Your task to perform on an android device: turn off wifi Image 0: 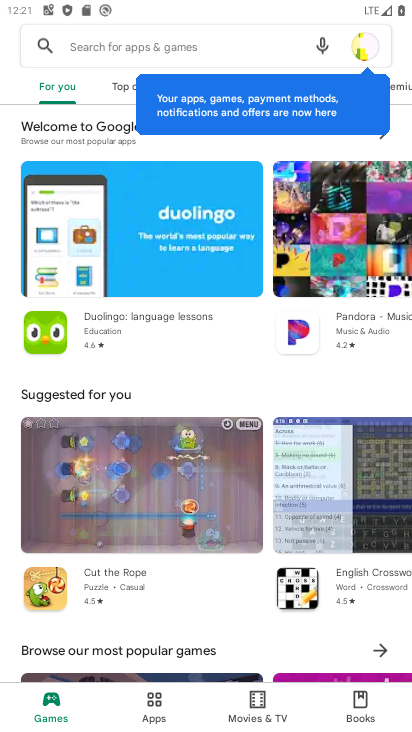
Step 0: press home button
Your task to perform on an android device: turn off wifi Image 1: 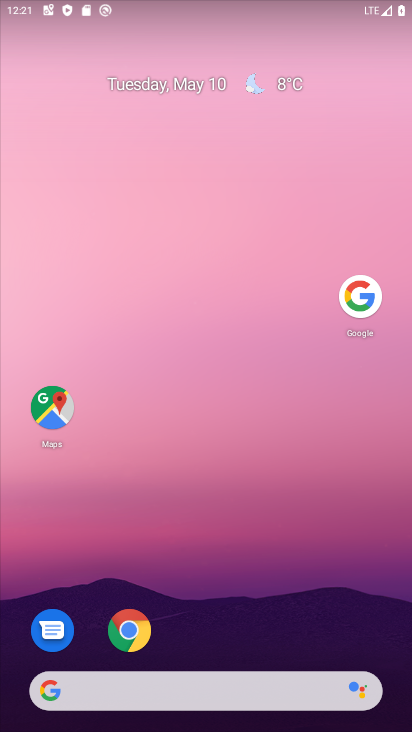
Step 1: drag from (174, 692) to (341, 164)
Your task to perform on an android device: turn off wifi Image 2: 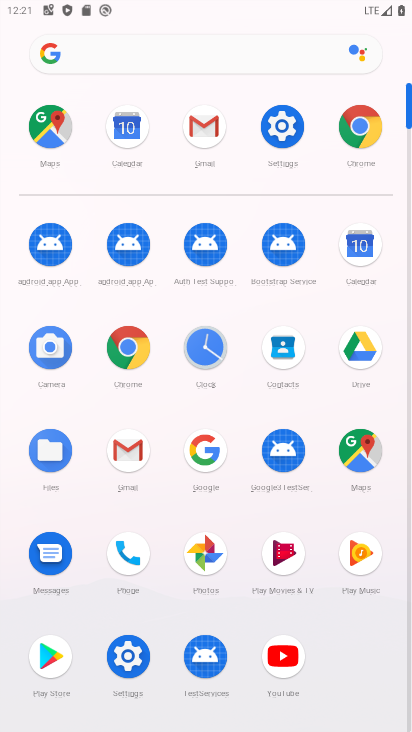
Step 2: click (292, 134)
Your task to perform on an android device: turn off wifi Image 3: 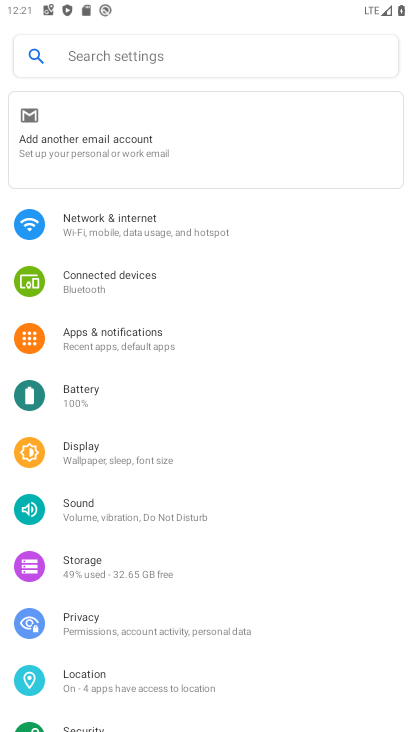
Step 3: click (127, 221)
Your task to perform on an android device: turn off wifi Image 4: 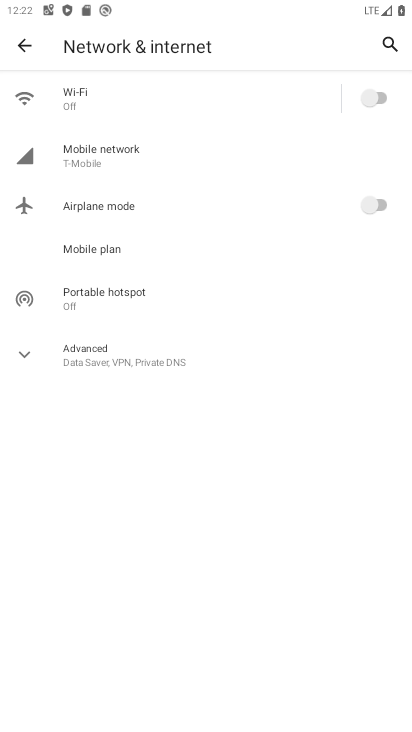
Step 4: task complete